Your task to perform on an android device: Open Youtube and go to the subscriptions tab Image 0: 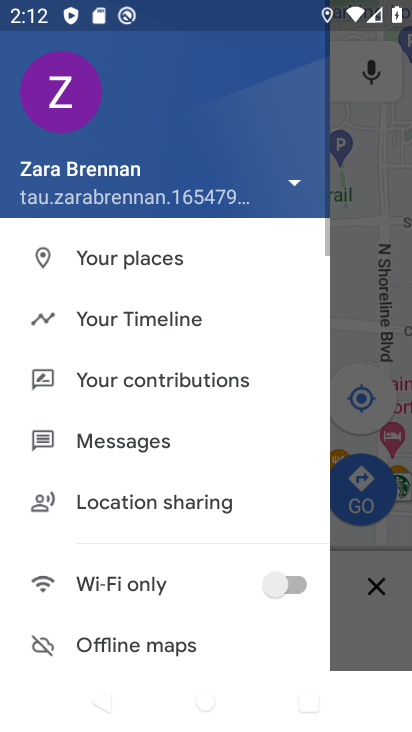
Step 0: press home button
Your task to perform on an android device: Open Youtube and go to the subscriptions tab Image 1: 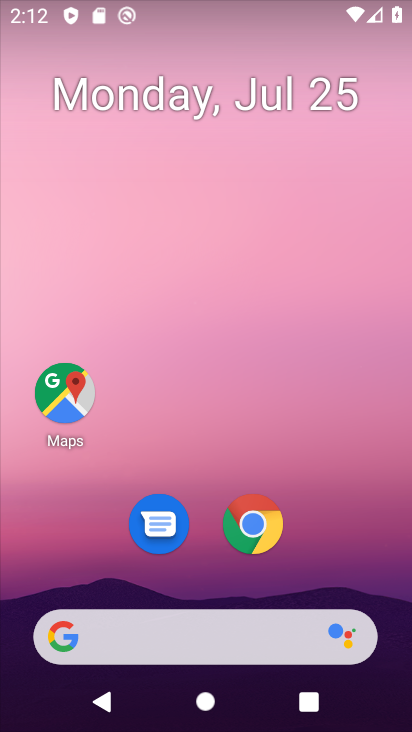
Step 1: drag from (222, 614) to (347, 90)
Your task to perform on an android device: Open Youtube and go to the subscriptions tab Image 2: 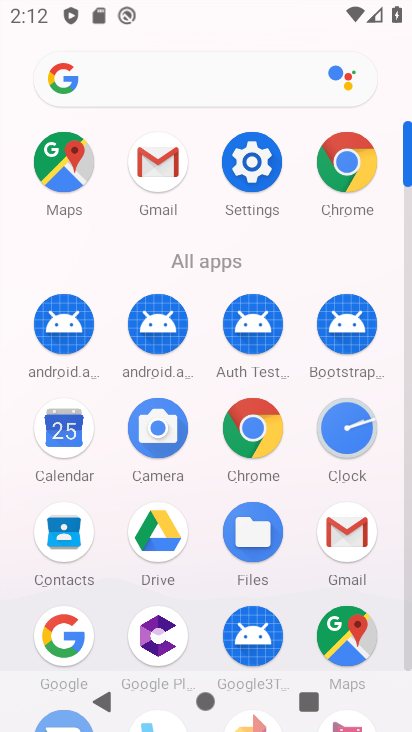
Step 2: drag from (213, 634) to (334, 52)
Your task to perform on an android device: Open Youtube and go to the subscriptions tab Image 3: 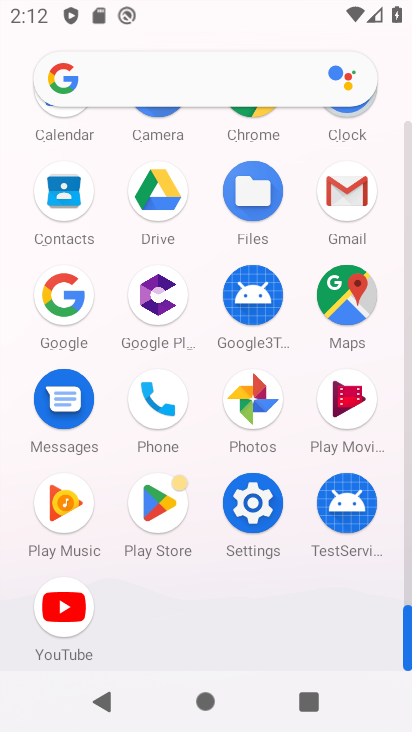
Step 3: click (63, 611)
Your task to perform on an android device: Open Youtube and go to the subscriptions tab Image 4: 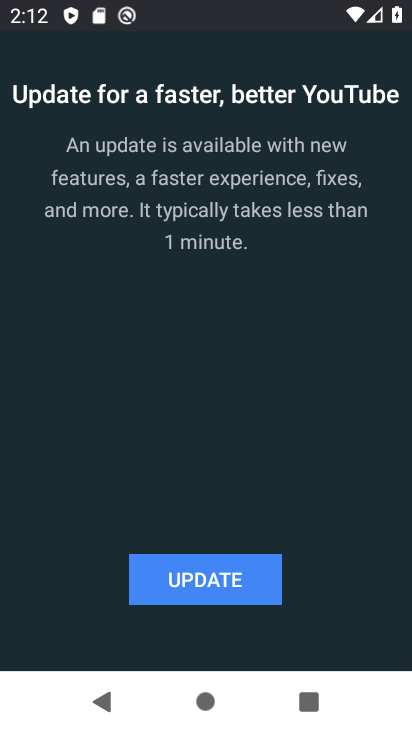
Step 4: click (231, 574)
Your task to perform on an android device: Open Youtube and go to the subscriptions tab Image 5: 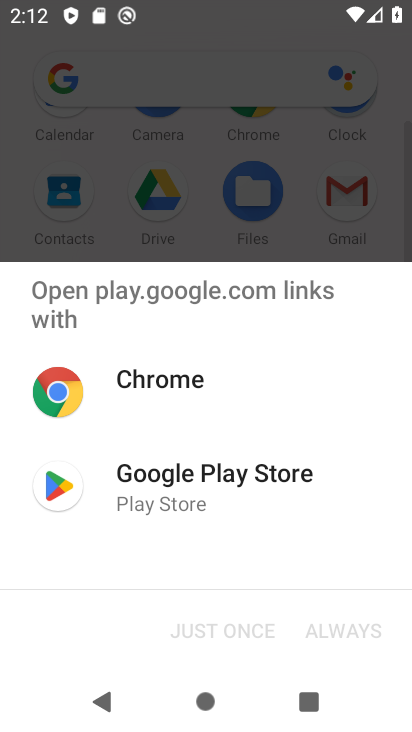
Step 5: click (171, 484)
Your task to perform on an android device: Open Youtube and go to the subscriptions tab Image 6: 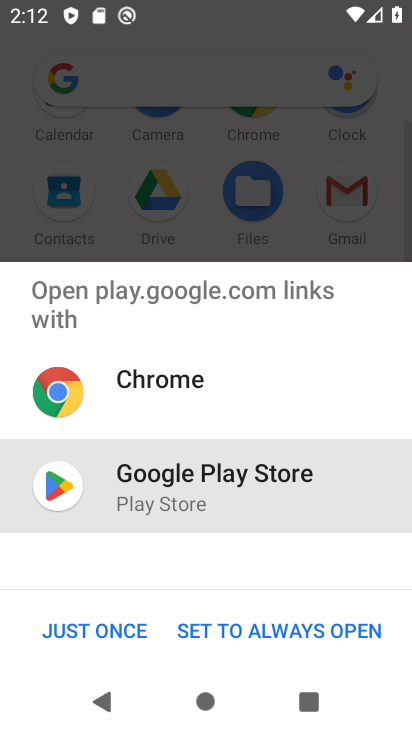
Step 6: click (106, 632)
Your task to perform on an android device: Open Youtube and go to the subscriptions tab Image 7: 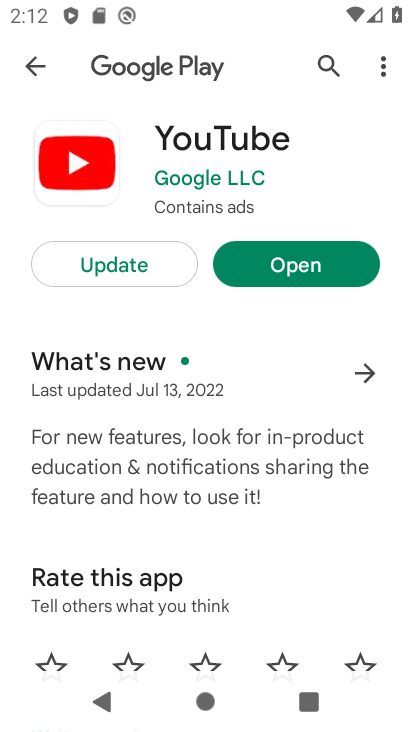
Step 7: click (113, 255)
Your task to perform on an android device: Open Youtube and go to the subscriptions tab Image 8: 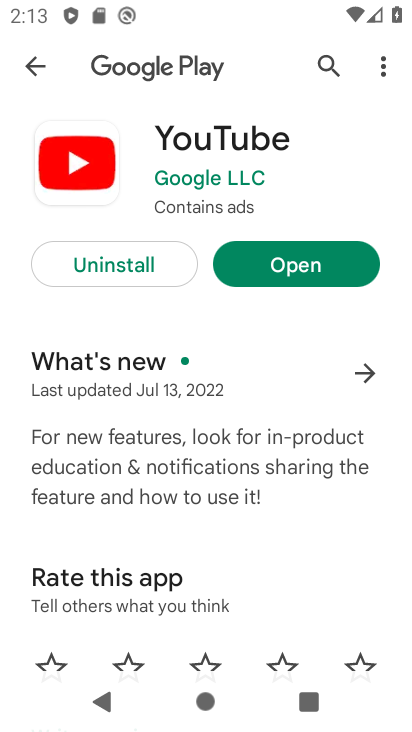
Step 8: click (288, 269)
Your task to perform on an android device: Open Youtube and go to the subscriptions tab Image 9: 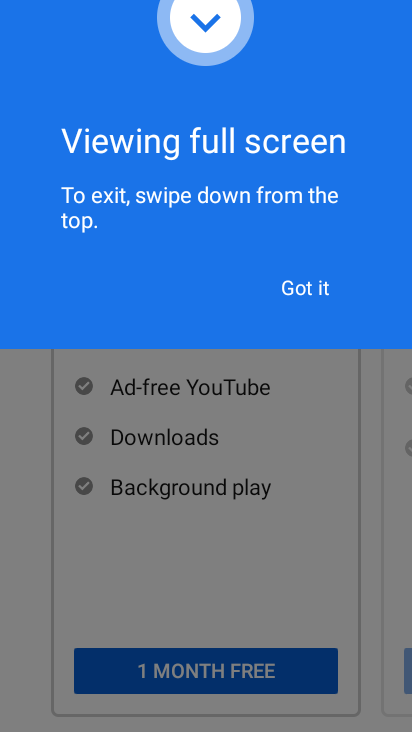
Step 9: click (319, 293)
Your task to perform on an android device: Open Youtube and go to the subscriptions tab Image 10: 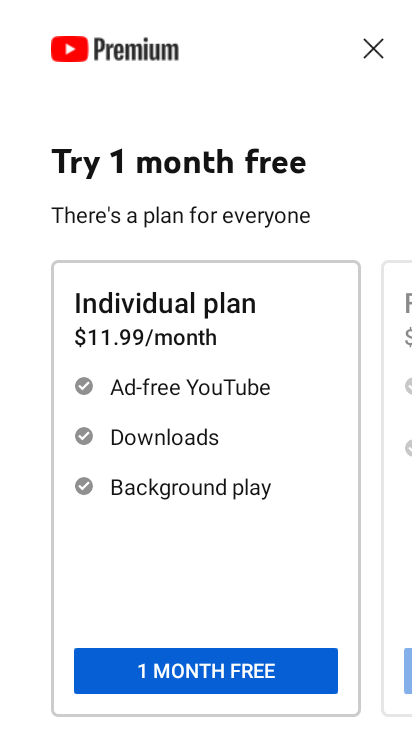
Step 10: click (370, 44)
Your task to perform on an android device: Open Youtube and go to the subscriptions tab Image 11: 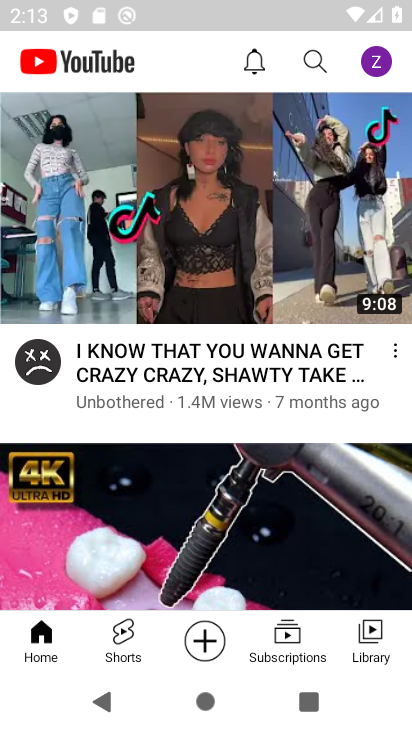
Step 11: click (288, 645)
Your task to perform on an android device: Open Youtube and go to the subscriptions tab Image 12: 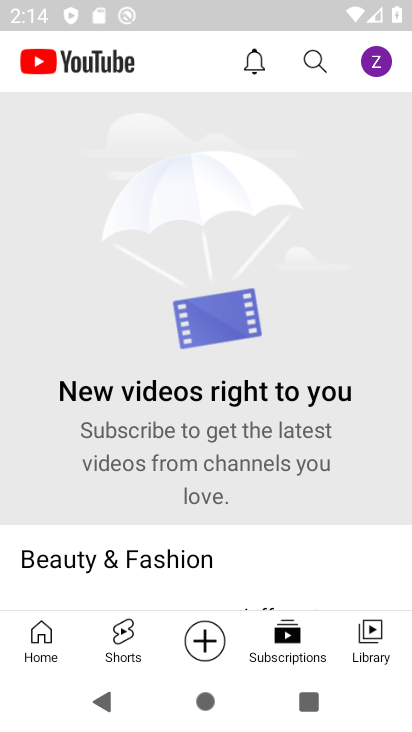
Step 12: task complete